Your task to perform on an android device: Do I have any events tomorrow? Image 0: 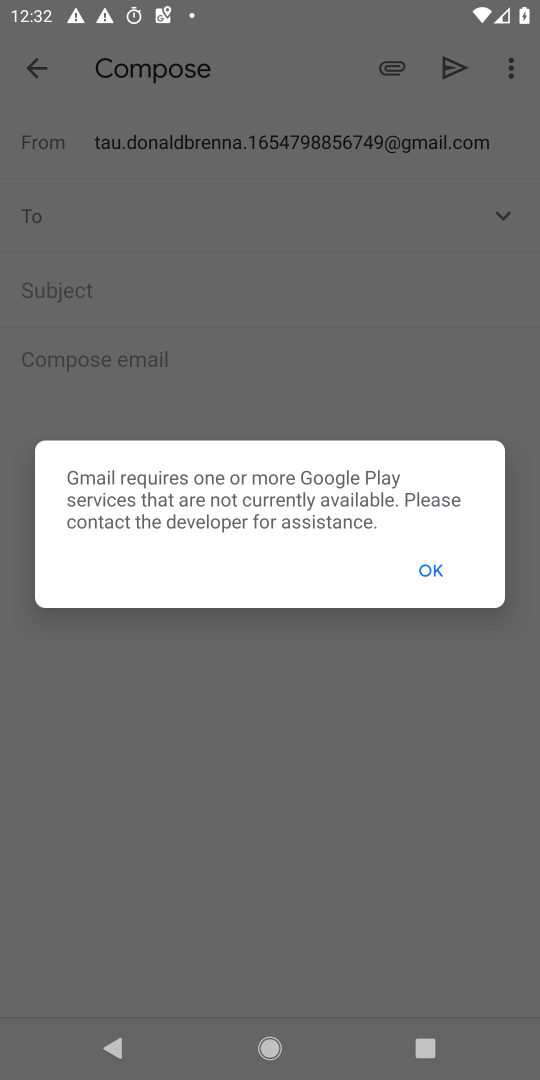
Step 0: press home button
Your task to perform on an android device: Do I have any events tomorrow? Image 1: 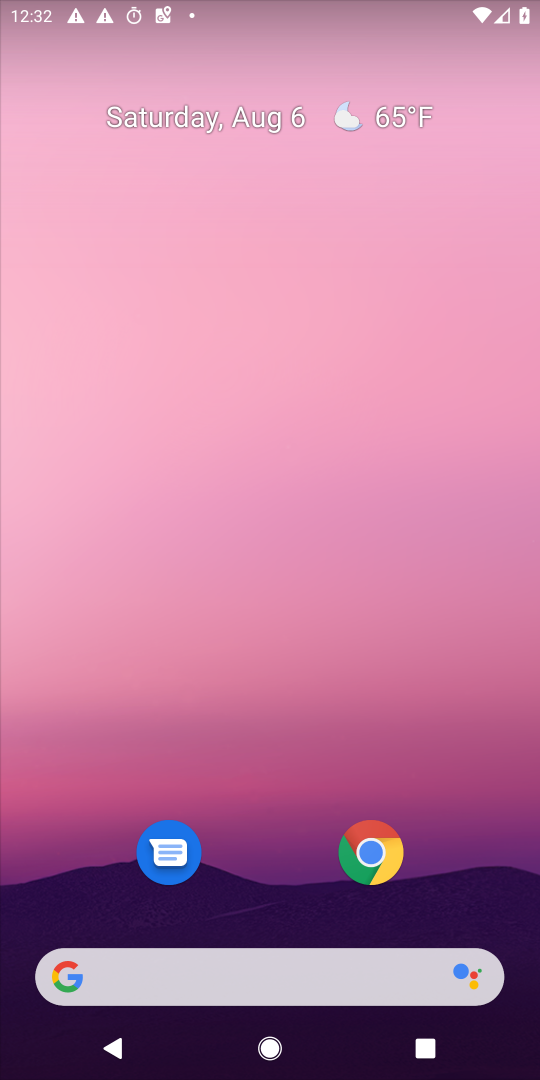
Step 1: drag from (348, 995) to (205, 313)
Your task to perform on an android device: Do I have any events tomorrow? Image 2: 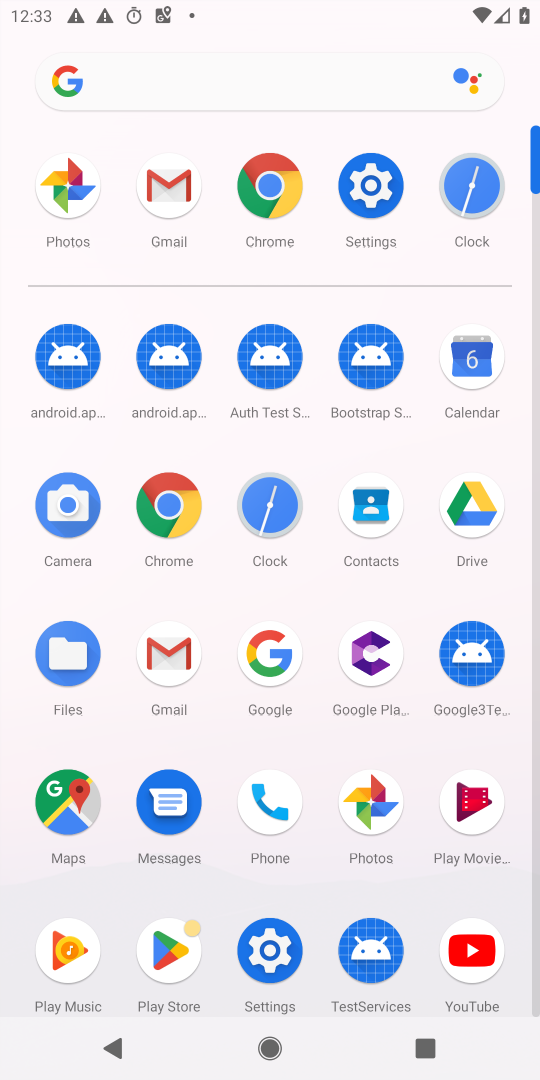
Step 2: click (458, 370)
Your task to perform on an android device: Do I have any events tomorrow? Image 3: 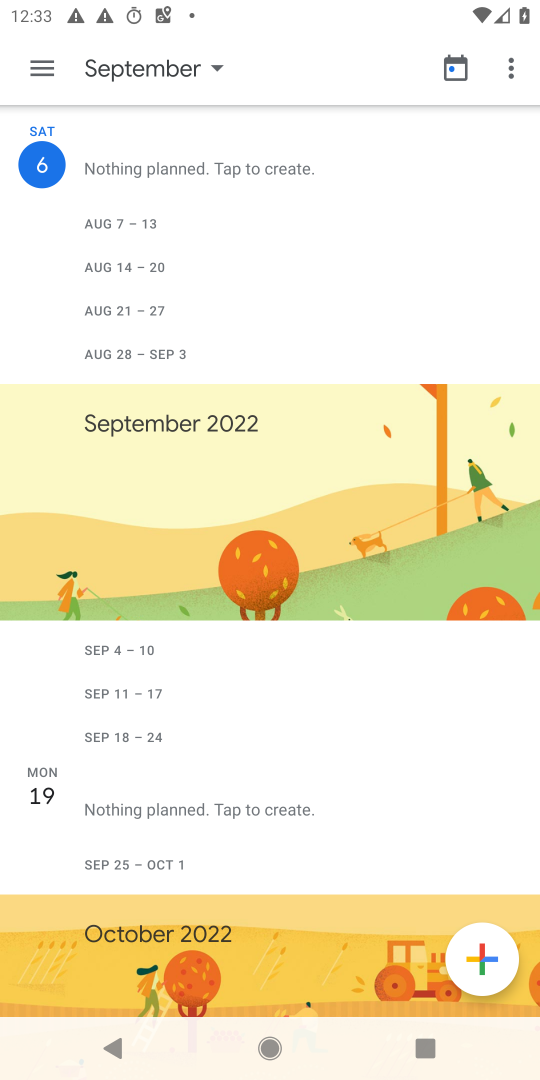
Step 3: click (26, 79)
Your task to perform on an android device: Do I have any events tomorrow? Image 4: 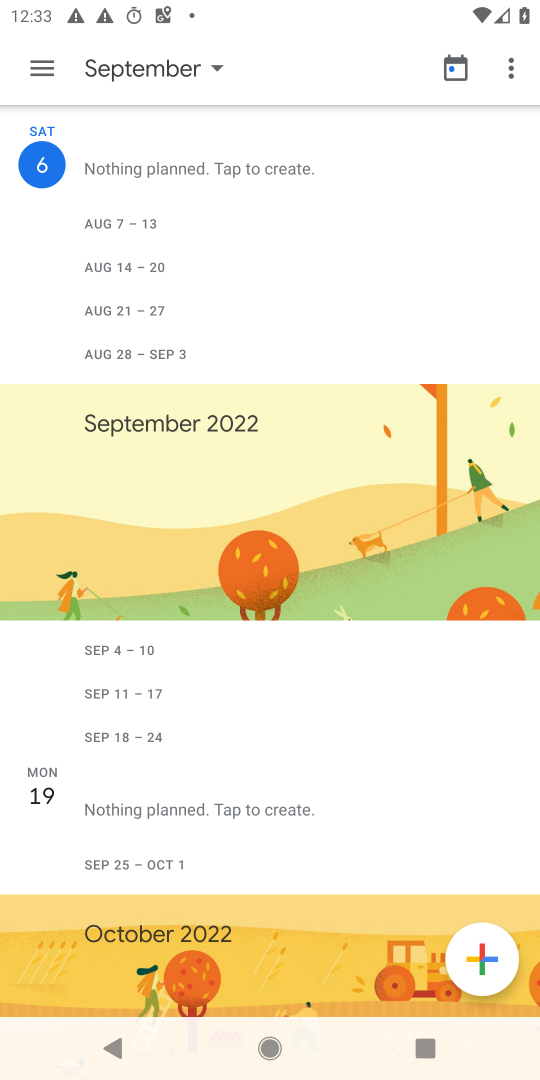
Step 4: click (43, 43)
Your task to perform on an android device: Do I have any events tomorrow? Image 5: 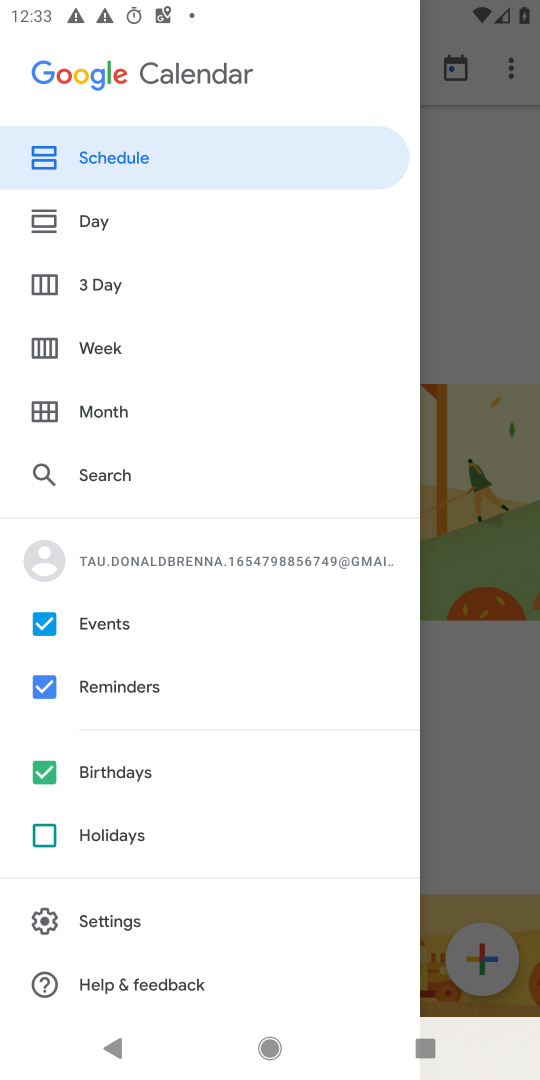
Step 5: click (118, 414)
Your task to perform on an android device: Do I have any events tomorrow? Image 6: 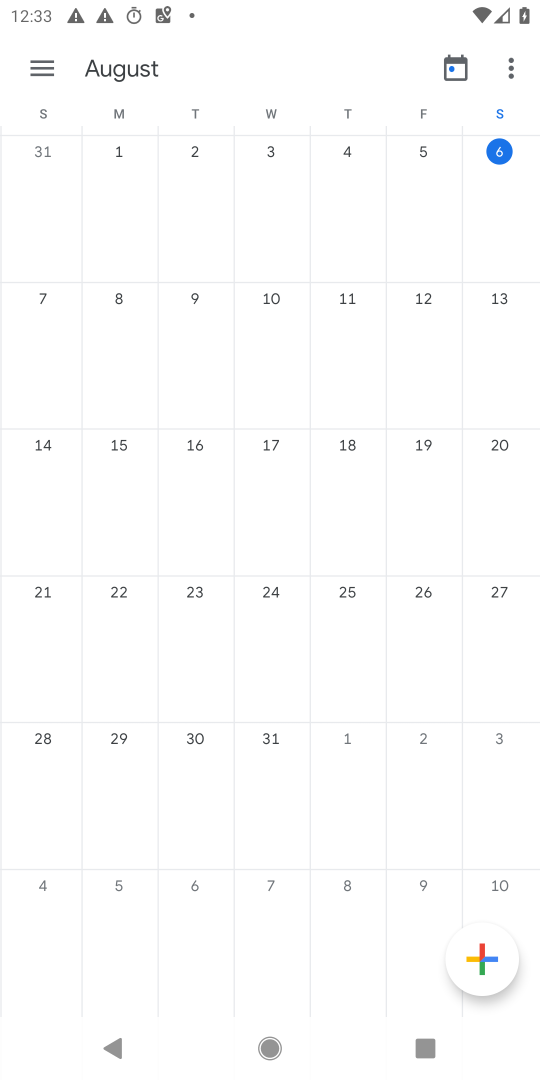
Step 6: click (30, 349)
Your task to perform on an android device: Do I have any events tomorrow? Image 7: 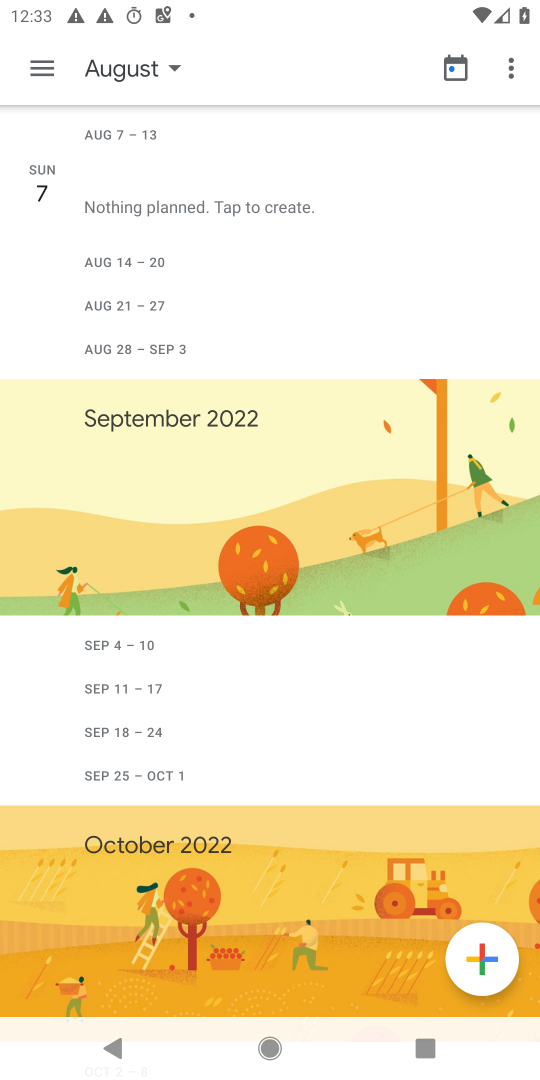
Step 7: task complete